Your task to perform on an android device: remove spam from my inbox in the gmail app Image 0: 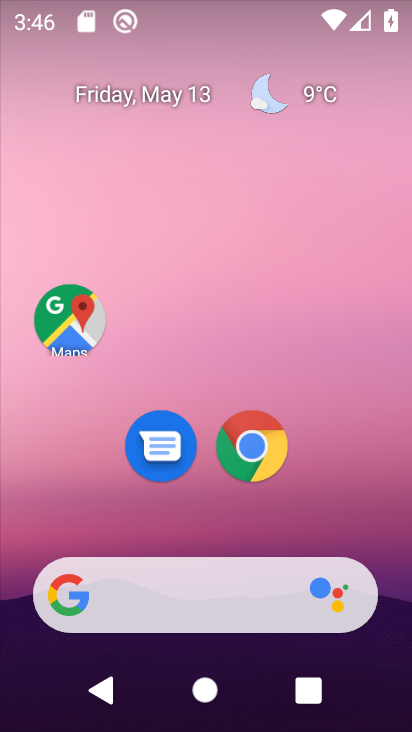
Step 0: drag from (233, 537) to (230, 58)
Your task to perform on an android device: remove spam from my inbox in the gmail app Image 1: 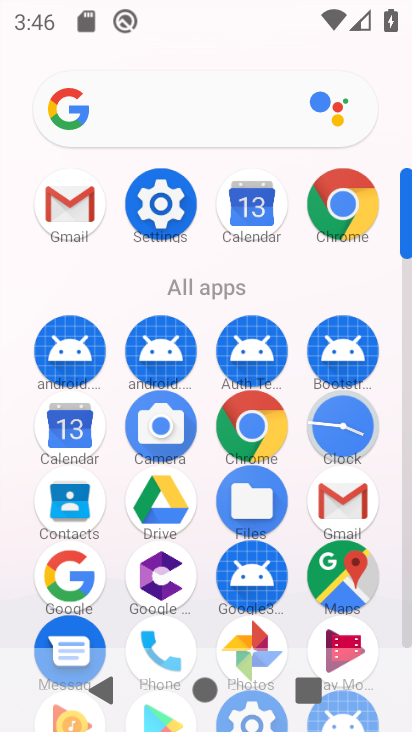
Step 1: click (331, 511)
Your task to perform on an android device: remove spam from my inbox in the gmail app Image 2: 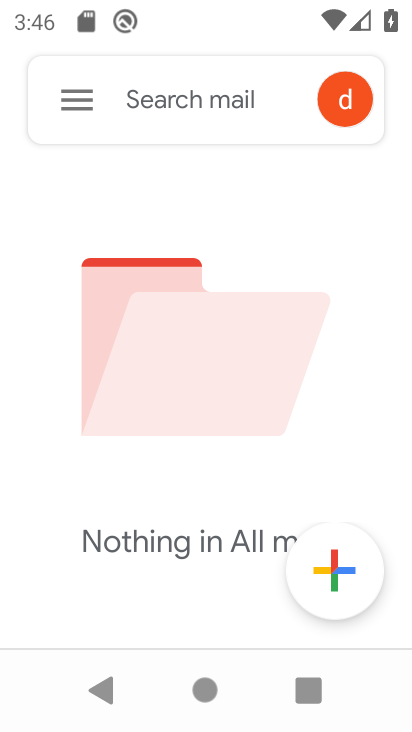
Step 2: click (72, 101)
Your task to perform on an android device: remove spam from my inbox in the gmail app Image 3: 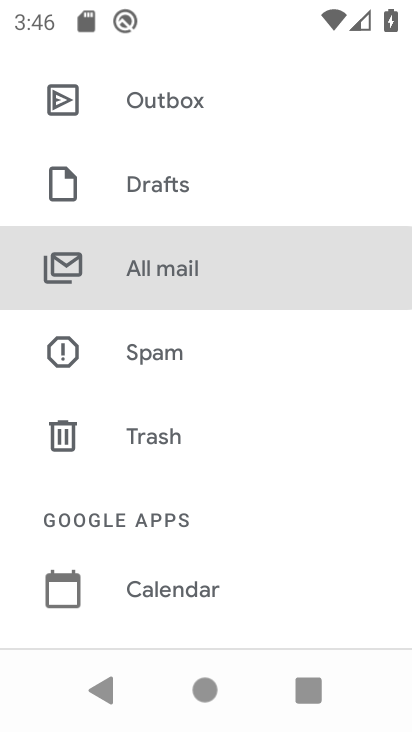
Step 3: click (190, 358)
Your task to perform on an android device: remove spam from my inbox in the gmail app Image 4: 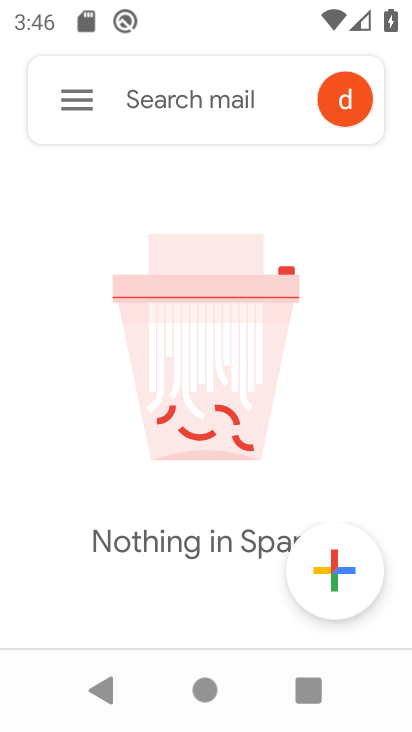
Step 4: task complete